Your task to perform on an android device: Check the weather Image 0: 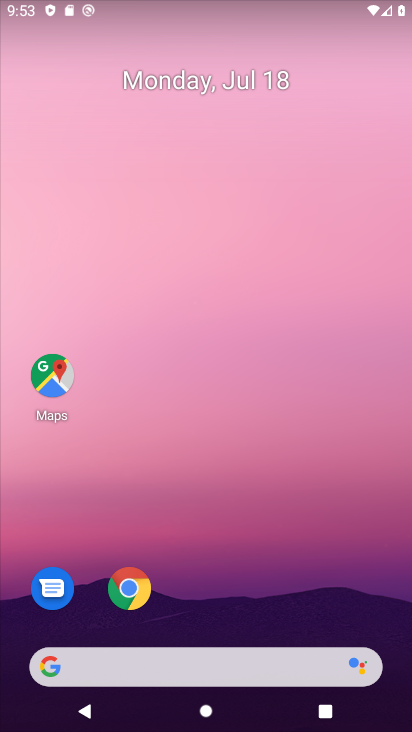
Step 0: drag from (236, 724) to (230, 136)
Your task to perform on an android device: Check the weather Image 1: 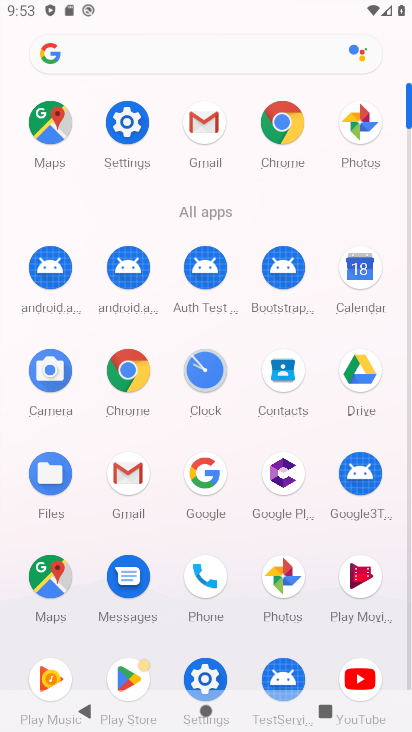
Step 1: click (211, 472)
Your task to perform on an android device: Check the weather Image 2: 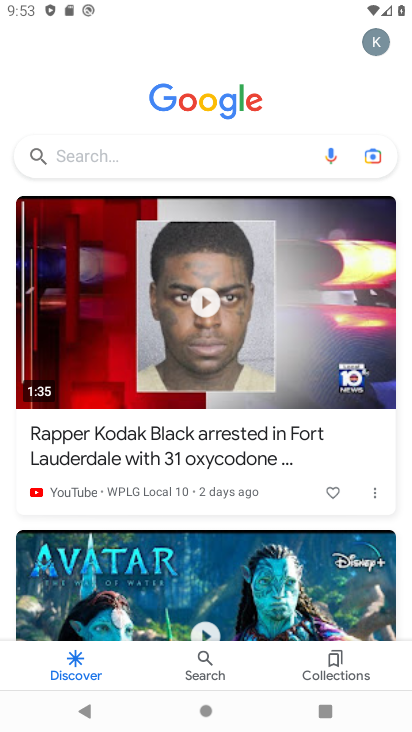
Step 2: click (219, 159)
Your task to perform on an android device: Check the weather Image 3: 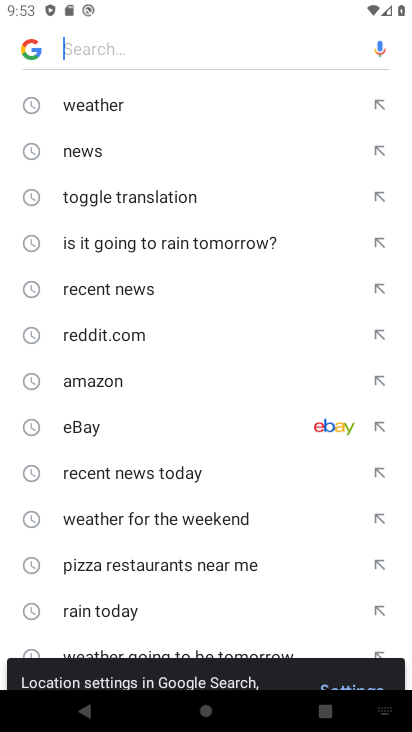
Step 3: click (77, 103)
Your task to perform on an android device: Check the weather Image 4: 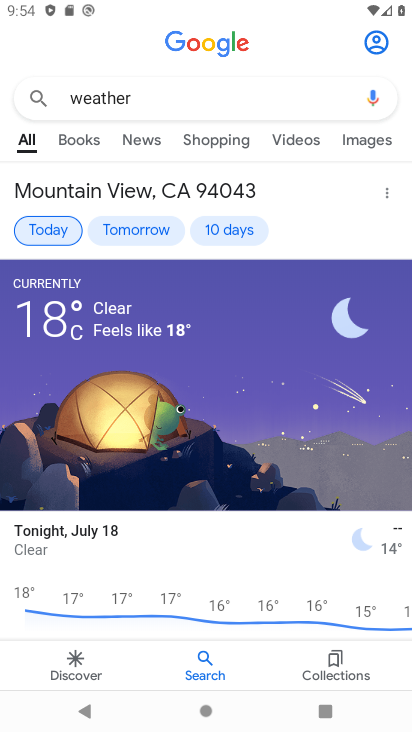
Step 4: click (50, 227)
Your task to perform on an android device: Check the weather Image 5: 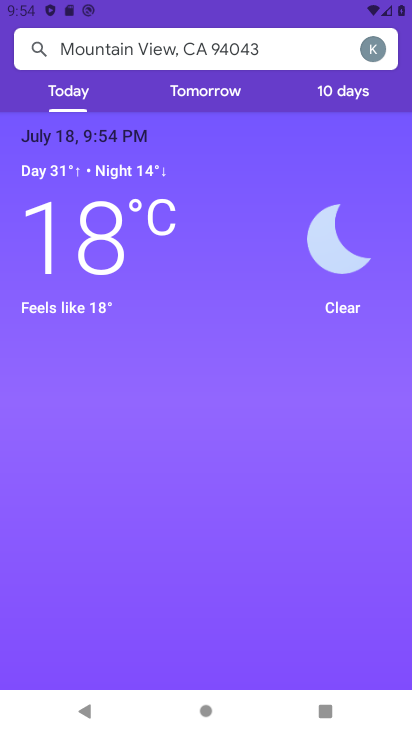
Step 5: task complete